Your task to perform on an android device: Play the last video I watched on Youtube Image 0: 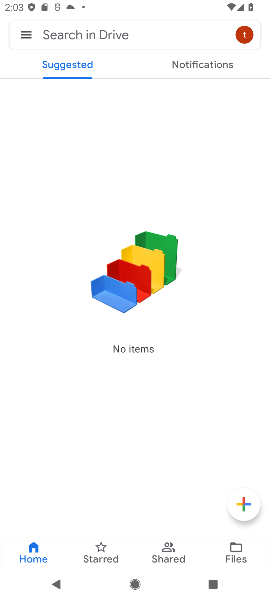
Step 0: press home button
Your task to perform on an android device: Play the last video I watched on Youtube Image 1: 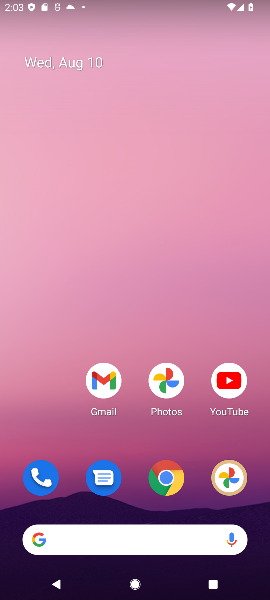
Step 1: click (236, 378)
Your task to perform on an android device: Play the last video I watched on Youtube Image 2: 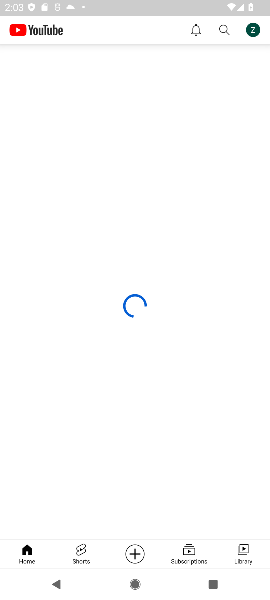
Step 2: task complete